Your task to perform on an android device: Open the web browser Image 0: 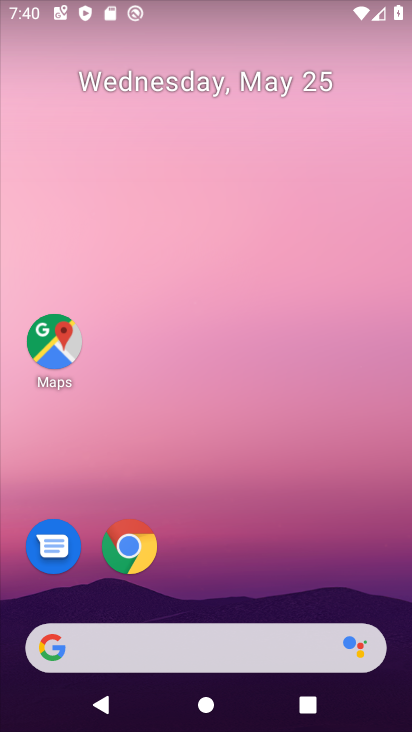
Step 0: click (133, 540)
Your task to perform on an android device: Open the web browser Image 1: 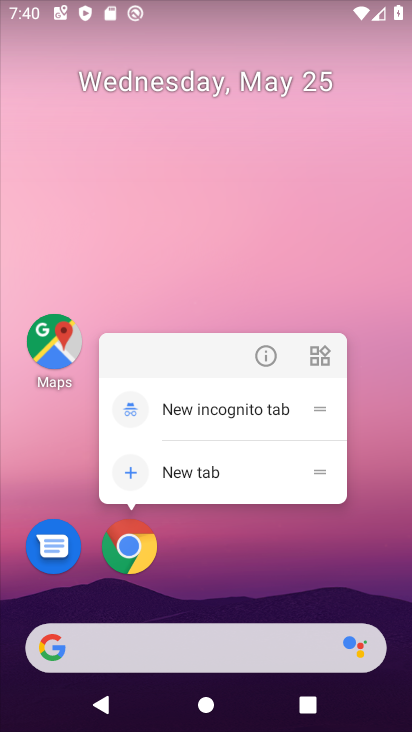
Step 1: click (140, 551)
Your task to perform on an android device: Open the web browser Image 2: 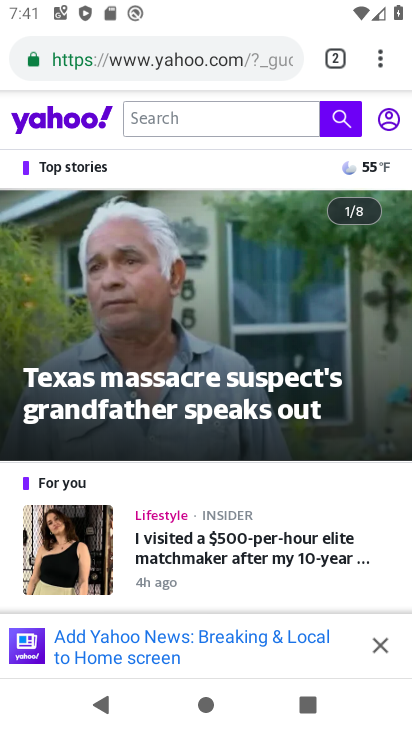
Step 2: task complete